Your task to perform on an android device: toggle show notifications on the lock screen Image 0: 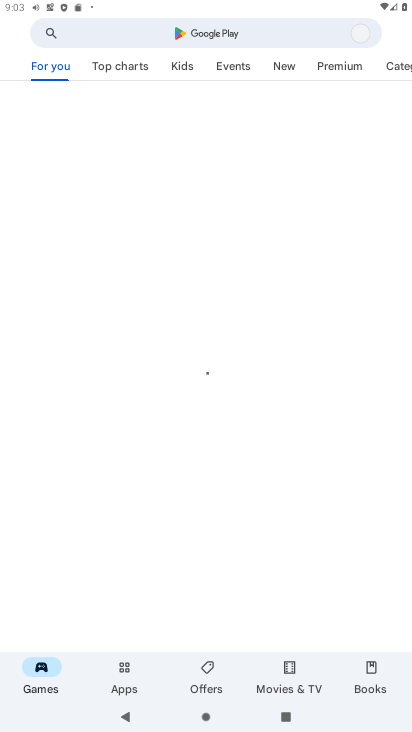
Step 0: press home button
Your task to perform on an android device: toggle show notifications on the lock screen Image 1: 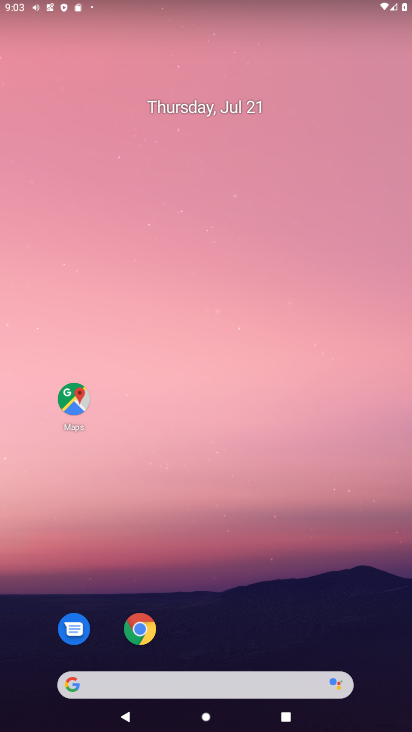
Step 1: drag from (230, 645) to (390, 82)
Your task to perform on an android device: toggle show notifications on the lock screen Image 2: 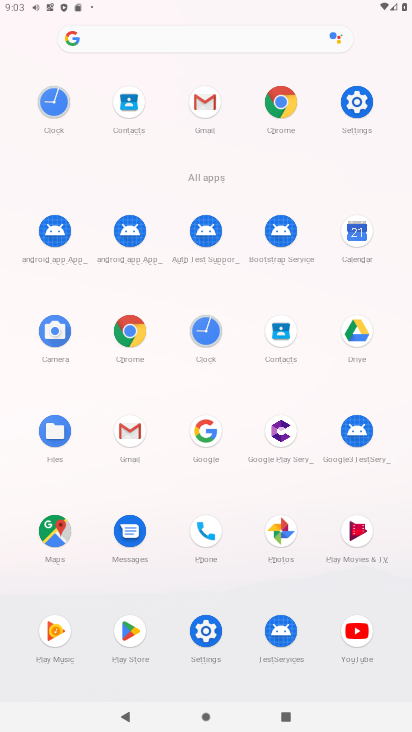
Step 2: click (340, 93)
Your task to perform on an android device: toggle show notifications on the lock screen Image 3: 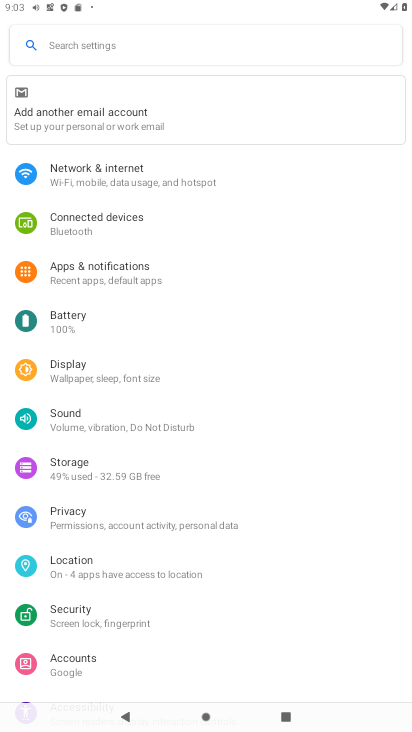
Step 3: click (83, 267)
Your task to perform on an android device: toggle show notifications on the lock screen Image 4: 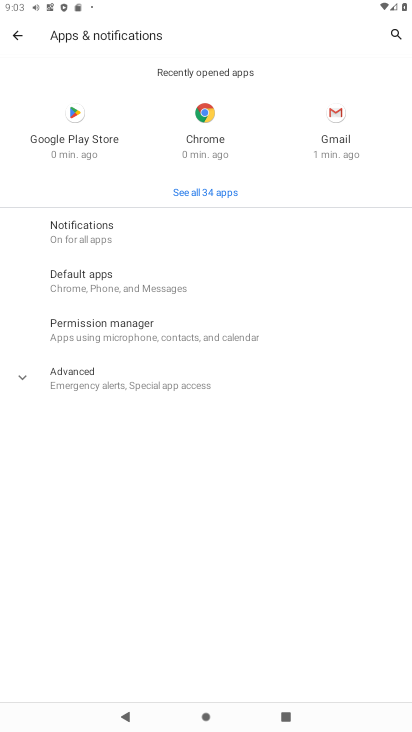
Step 4: click (98, 237)
Your task to perform on an android device: toggle show notifications on the lock screen Image 5: 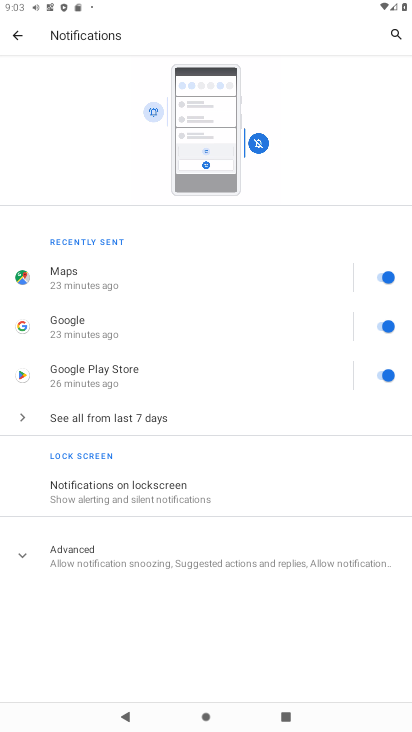
Step 5: click (108, 482)
Your task to perform on an android device: toggle show notifications on the lock screen Image 6: 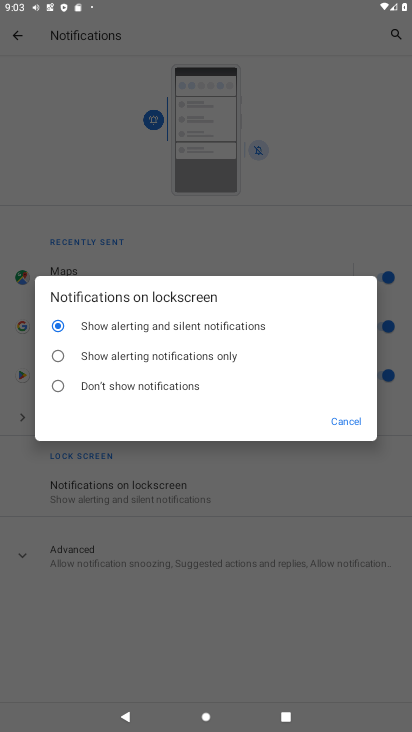
Step 6: click (177, 368)
Your task to perform on an android device: toggle show notifications on the lock screen Image 7: 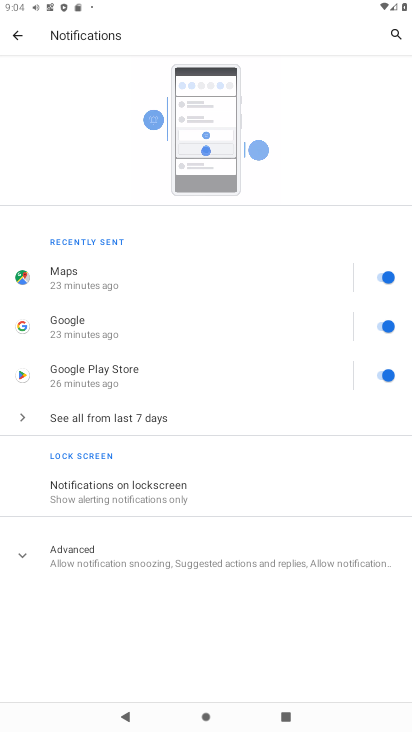
Step 7: task complete